Your task to perform on an android device: Open sound settings Image 0: 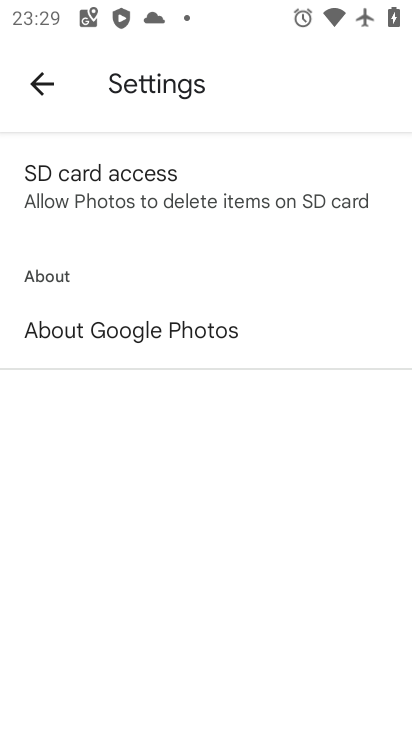
Step 0: press home button
Your task to perform on an android device: Open sound settings Image 1: 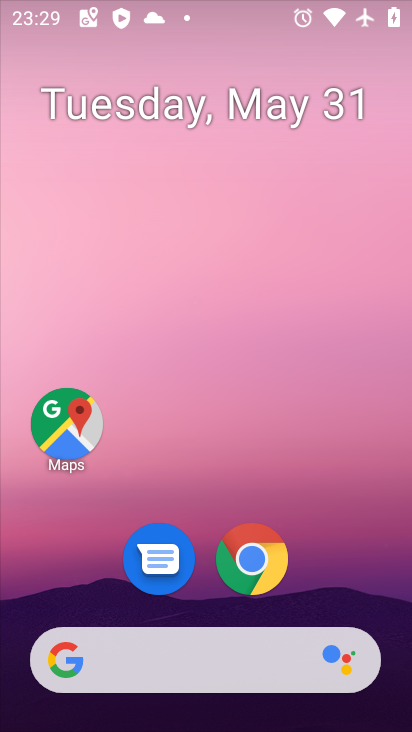
Step 1: drag from (312, 577) to (310, 68)
Your task to perform on an android device: Open sound settings Image 2: 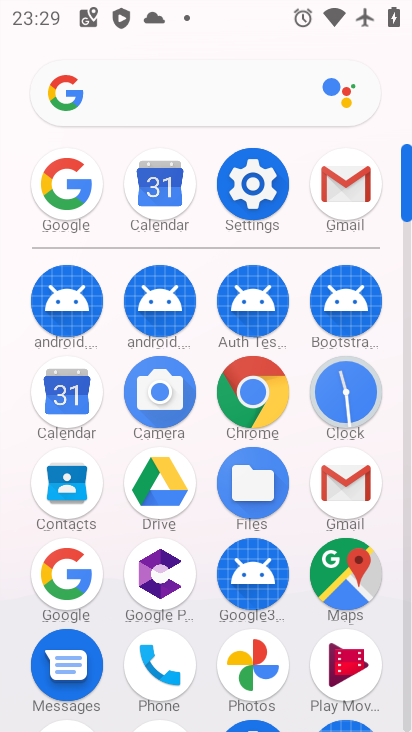
Step 2: click (242, 180)
Your task to perform on an android device: Open sound settings Image 3: 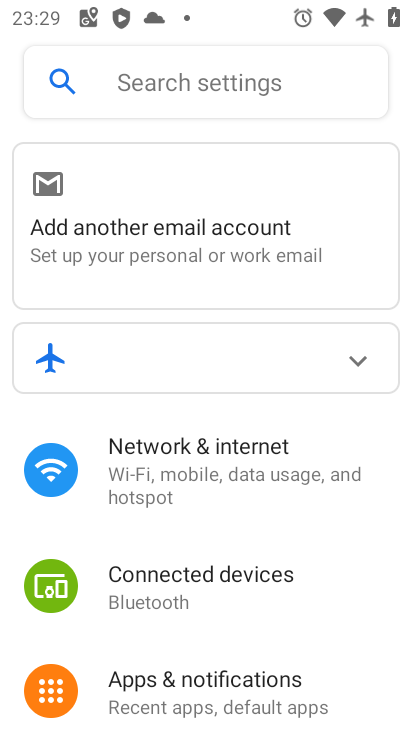
Step 3: drag from (218, 598) to (202, 17)
Your task to perform on an android device: Open sound settings Image 4: 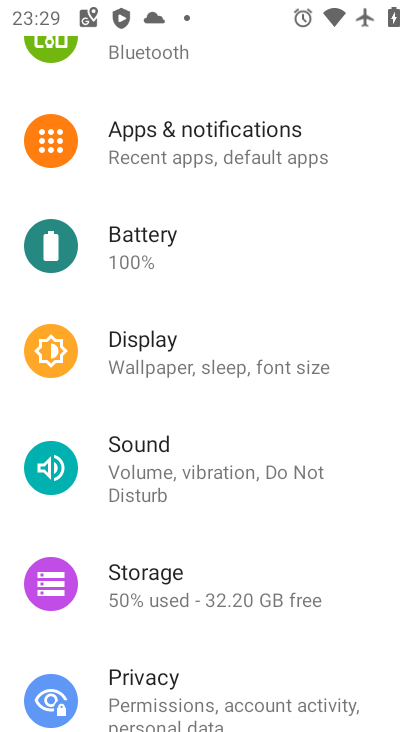
Step 4: click (157, 471)
Your task to perform on an android device: Open sound settings Image 5: 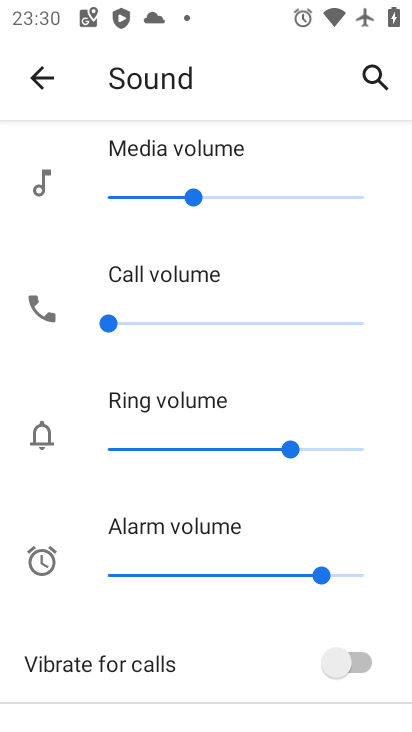
Step 5: task complete